Your task to perform on an android device: Go to accessibility settings Image 0: 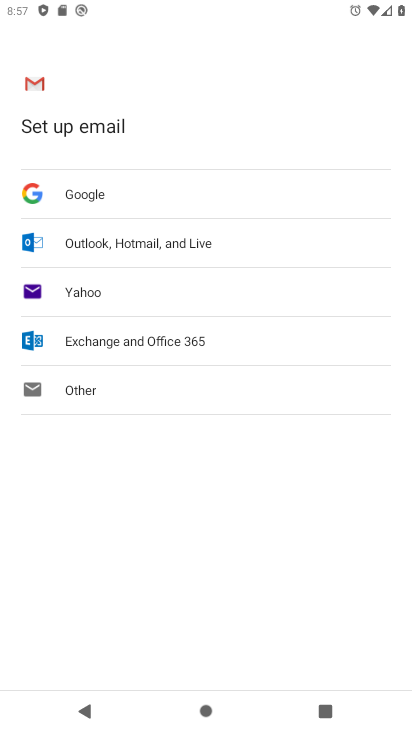
Step 0: press home button
Your task to perform on an android device: Go to accessibility settings Image 1: 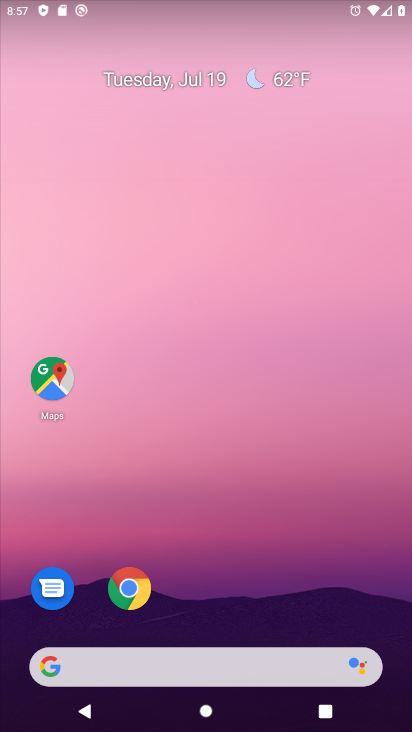
Step 1: drag from (226, 403) to (151, 0)
Your task to perform on an android device: Go to accessibility settings Image 2: 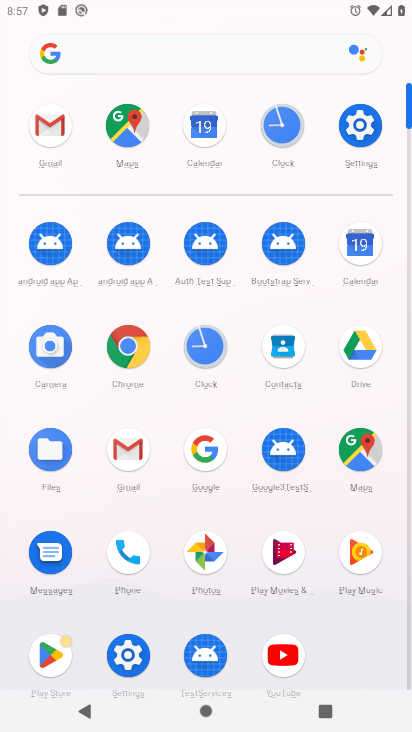
Step 2: click (350, 144)
Your task to perform on an android device: Go to accessibility settings Image 3: 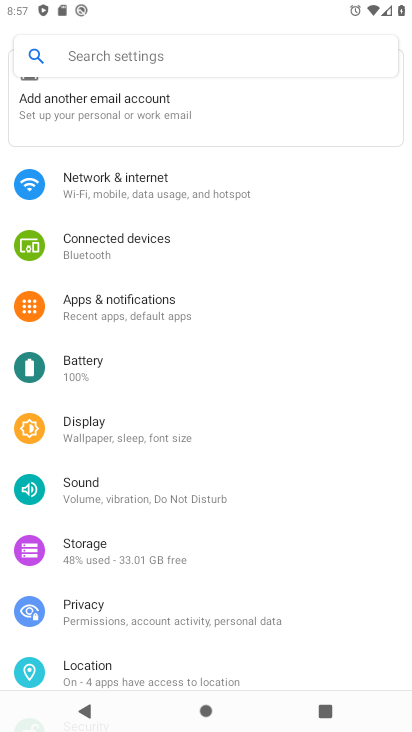
Step 3: drag from (121, 501) to (59, 256)
Your task to perform on an android device: Go to accessibility settings Image 4: 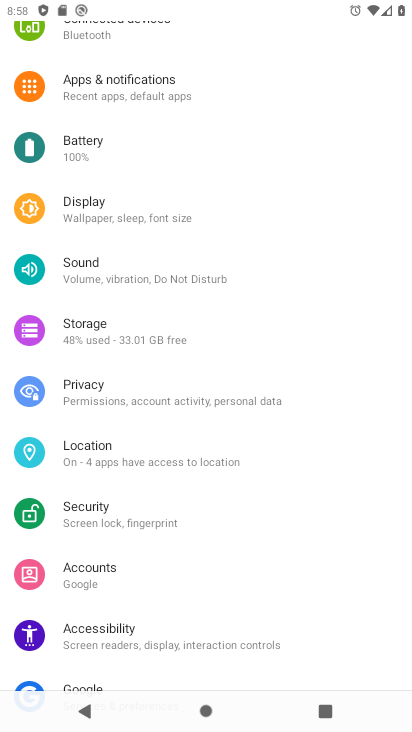
Step 4: click (109, 626)
Your task to perform on an android device: Go to accessibility settings Image 5: 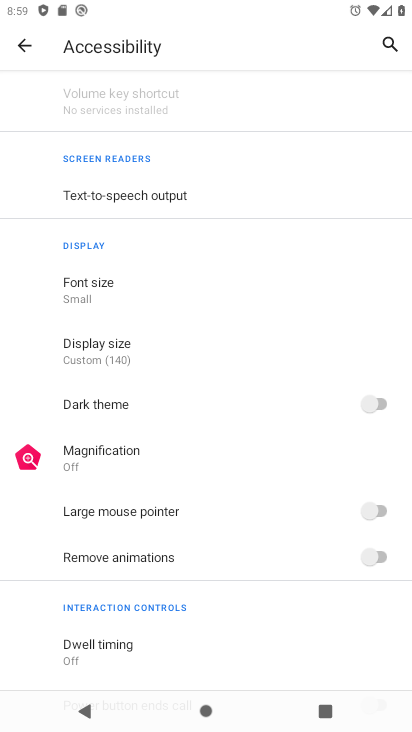
Step 5: task complete